Your task to perform on an android device: Open Chrome and go to settings Image 0: 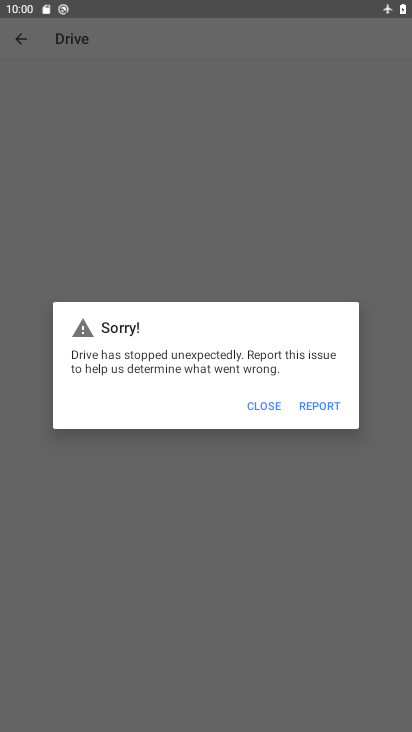
Step 0: press home button
Your task to perform on an android device: Open Chrome and go to settings Image 1: 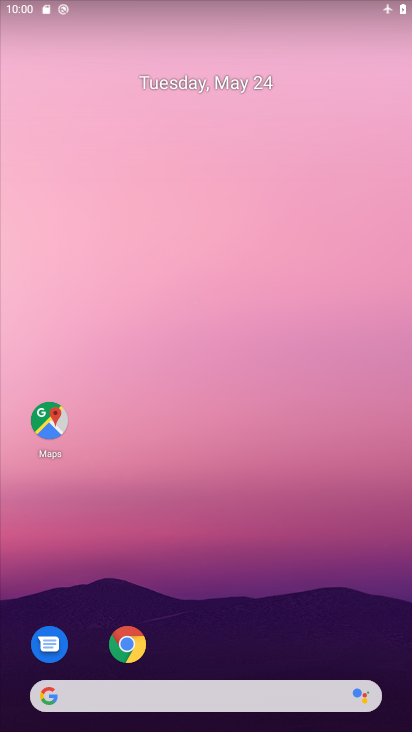
Step 1: drag from (226, 523) to (167, 107)
Your task to perform on an android device: Open Chrome and go to settings Image 2: 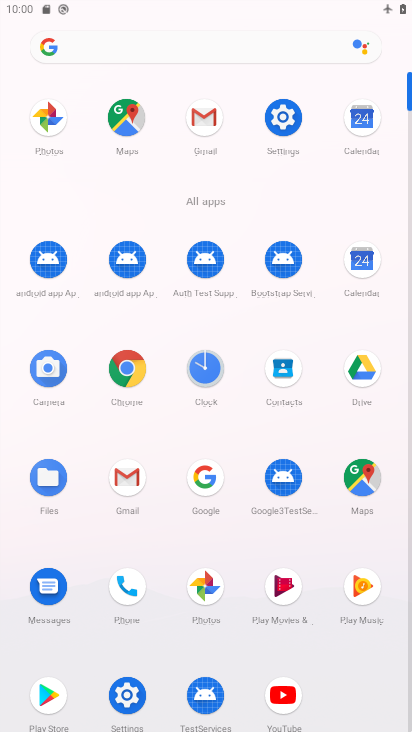
Step 2: click (128, 358)
Your task to perform on an android device: Open Chrome and go to settings Image 3: 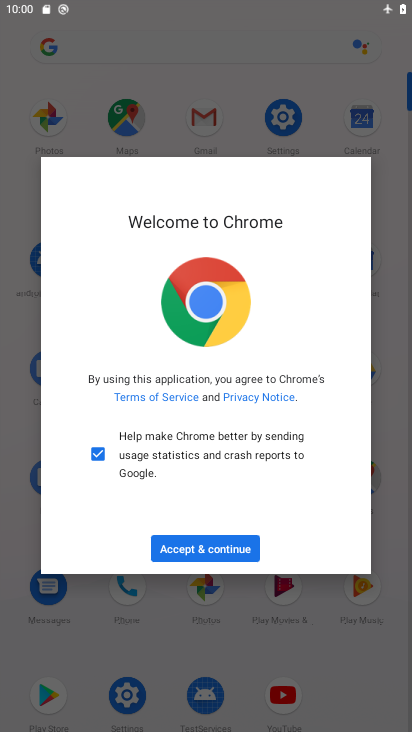
Step 3: click (202, 549)
Your task to perform on an android device: Open Chrome and go to settings Image 4: 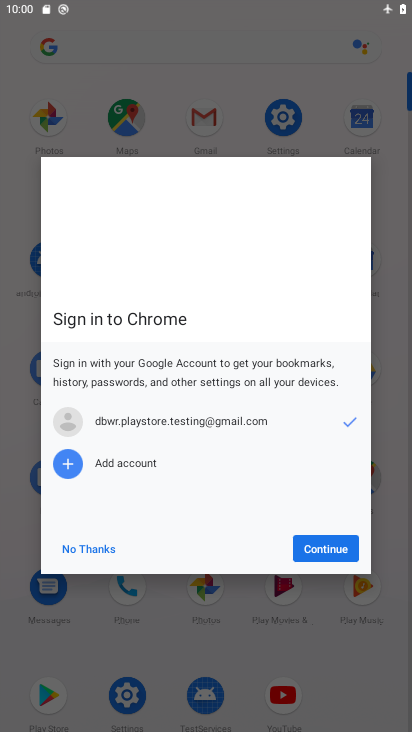
Step 4: click (341, 545)
Your task to perform on an android device: Open Chrome and go to settings Image 5: 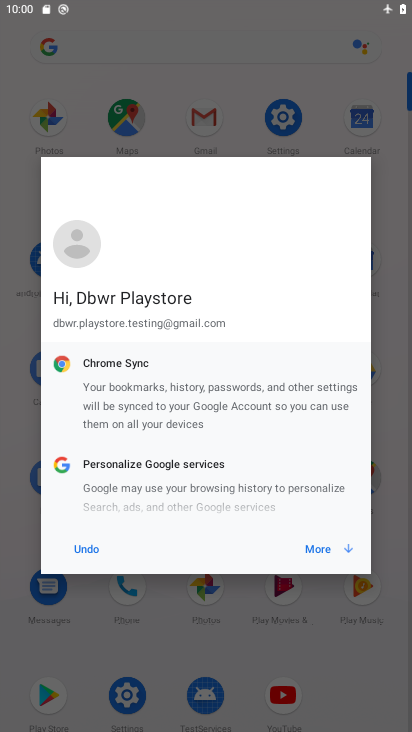
Step 5: click (344, 546)
Your task to perform on an android device: Open Chrome and go to settings Image 6: 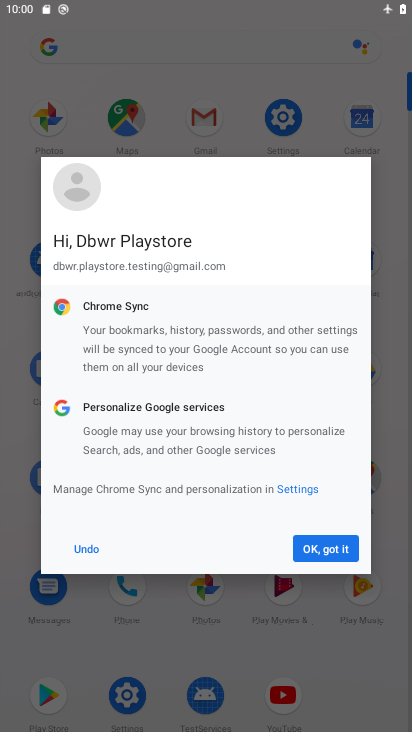
Step 6: click (322, 544)
Your task to perform on an android device: Open Chrome and go to settings Image 7: 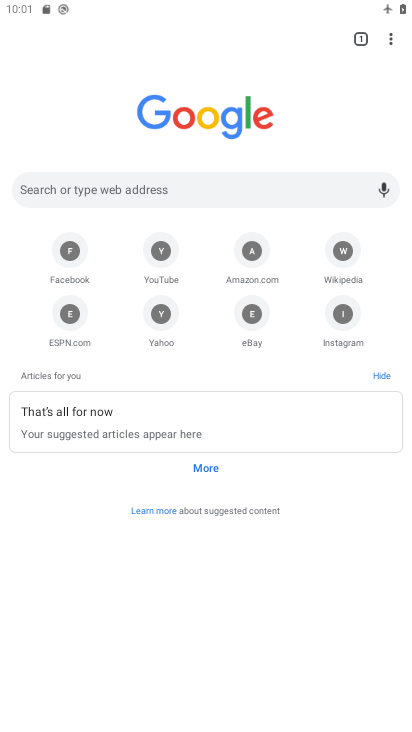
Step 7: click (392, 39)
Your task to perform on an android device: Open Chrome and go to settings Image 8: 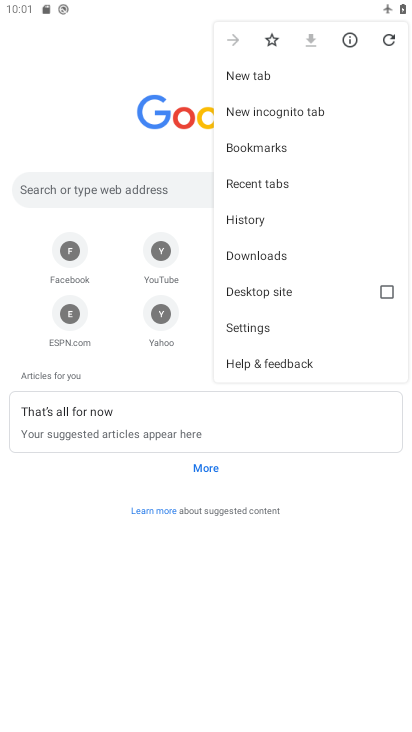
Step 8: click (256, 328)
Your task to perform on an android device: Open Chrome and go to settings Image 9: 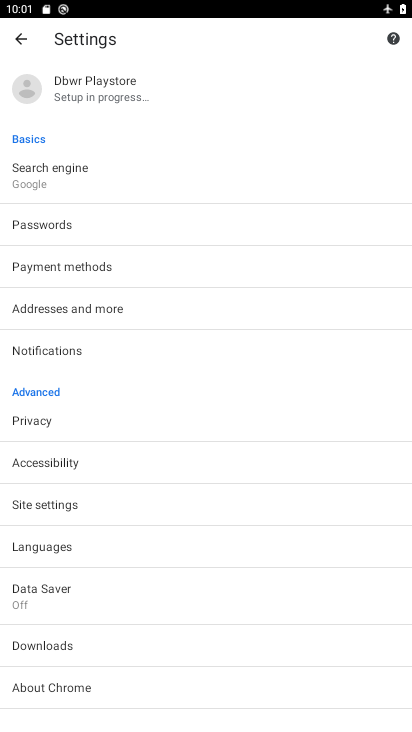
Step 9: task complete